Your task to perform on an android device: Go to Google maps Image 0: 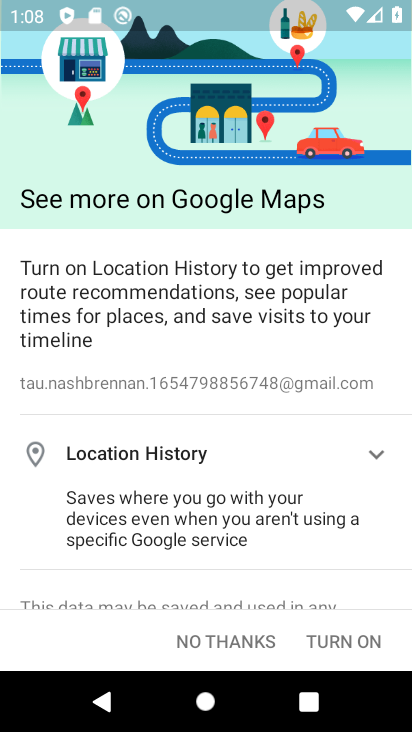
Step 0: click (357, 643)
Your task to perform on an android device: Go to Google maps Image 1: 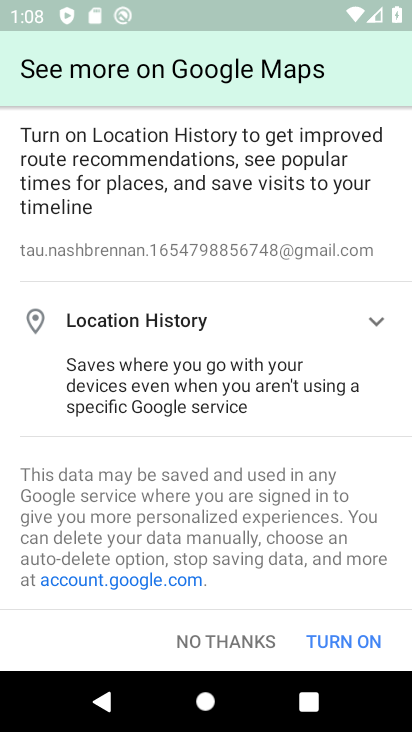
Step 1: click (358, 643)
Your task to perform on an android device: Go to Google maps Image 2: 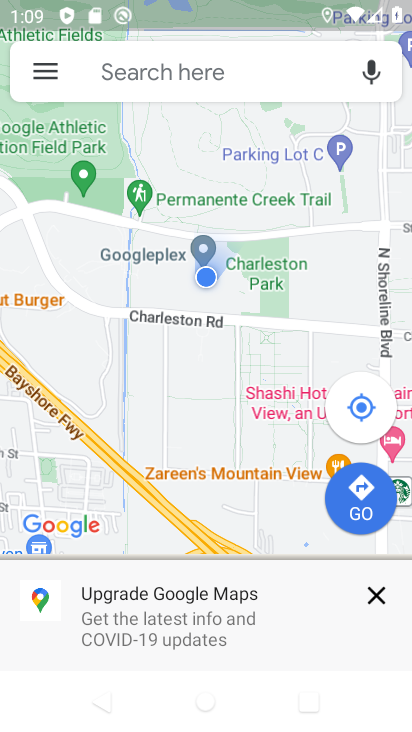
Step 2: task complete